Your task to perform on an android device: Go to Android settings Image 0: 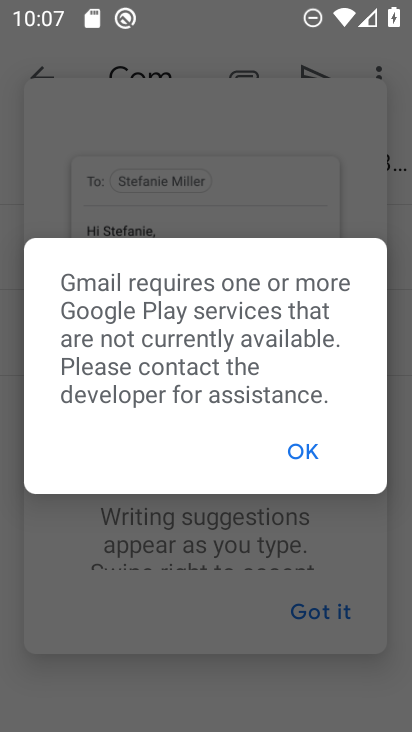
Step 0: press home button
Your task to perform on an android device: Go to Android settings Image 1: 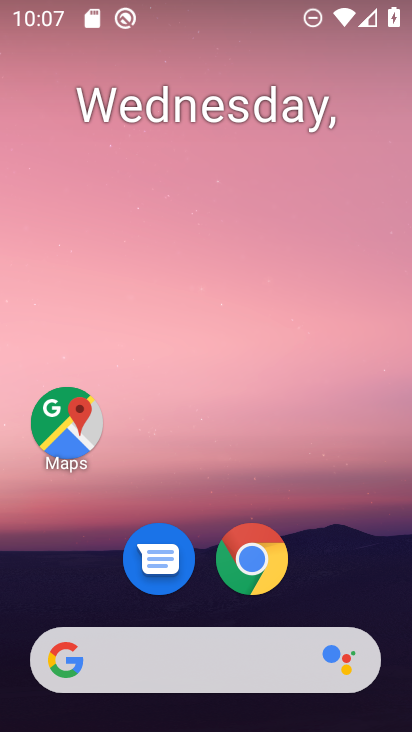
Step 1: drag from (378, 584) to (386, 121)
Your task to perform on an android device: Go to Android settings Image 2: 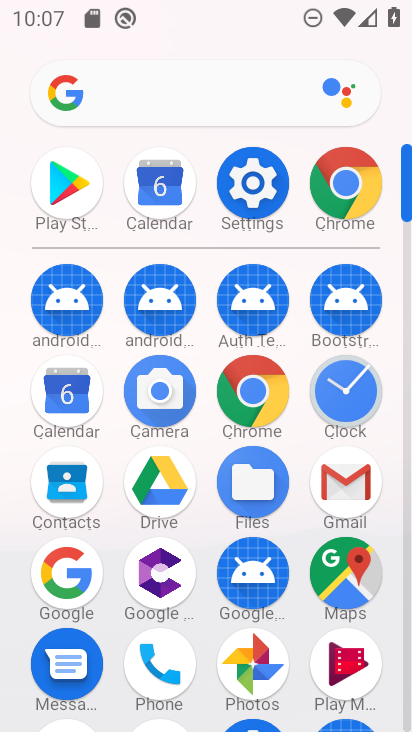
Step 2: click (271, 203)
Your task to perform on an android device: Go to Android settings Image 3: 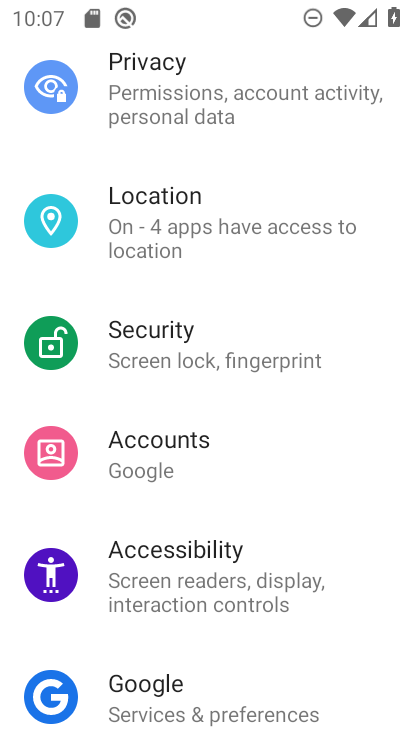
Step 3: drag from (364, 417) to (359, 343)
Your task to perform on an android device: Go to Android settings Image 4: 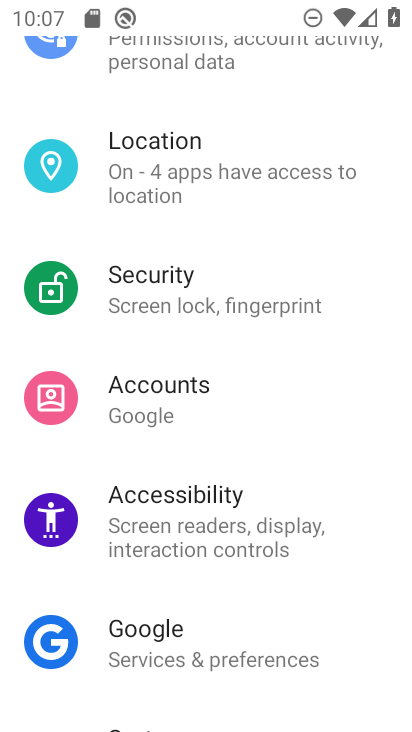
Step 4: drag from (360, 405) to (359, 323)
Your task to perform on an android device: Go to Android settings Image 5: 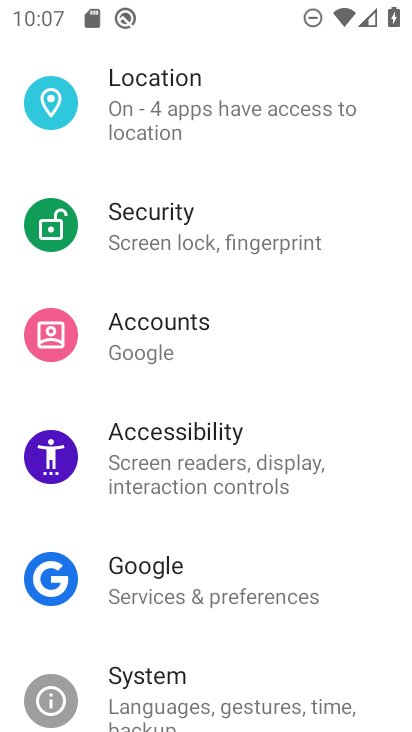
Step 5: drag from (359, 384) to (356, 307)
Your task to perform on an android device: Go to Android settings Image 6: 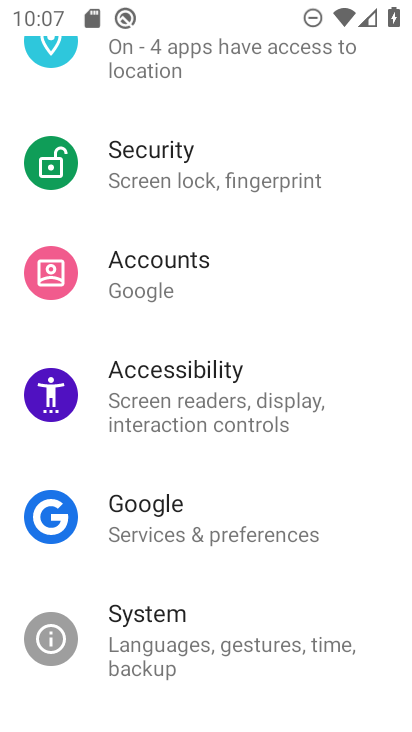
Step 6: drag from (356, 425) to (354, 311)
Your task to perform on an android device: Go to Android settings Image 7: 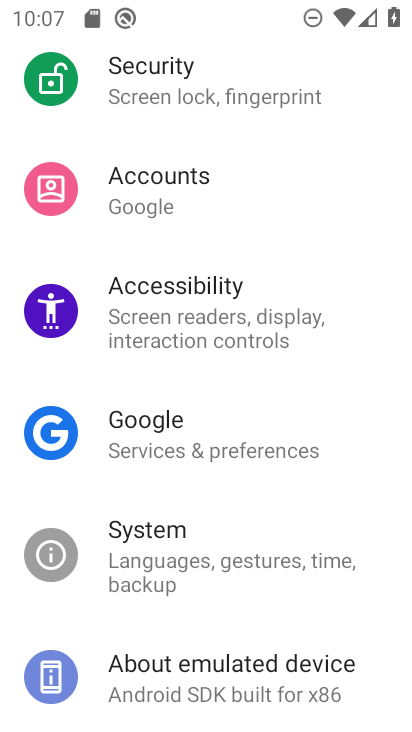
Step 7: drag from (339, 498) to (362, 354)
Your task to perform on an android device: Go to Android settings Image 8: 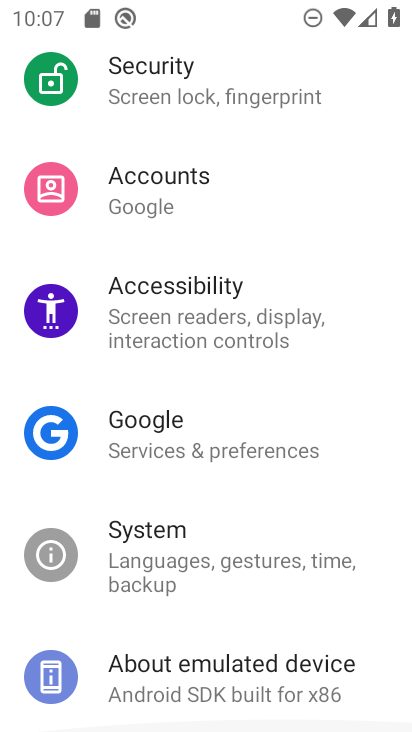
Step 8: click (287, 554)
Your task to perform on an android device: Go to Android settings Image 9: 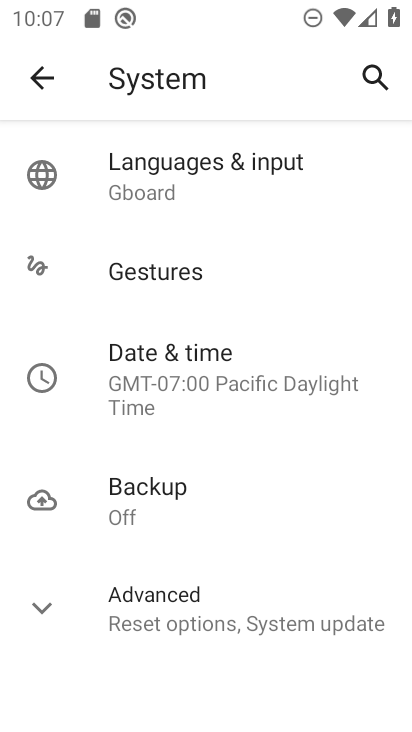
Step 9: click (271, 614)
Your task to perform on an android device: Go to Android settings Image 10: 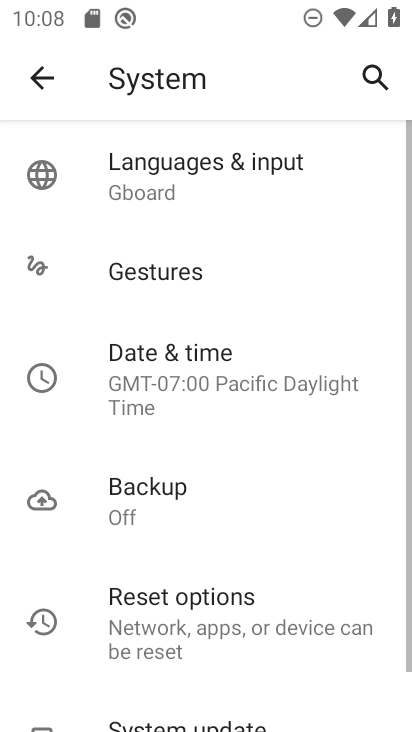
Step 10: task complete